Your task to perform on an android device: open chrome privacy settings Image 0: 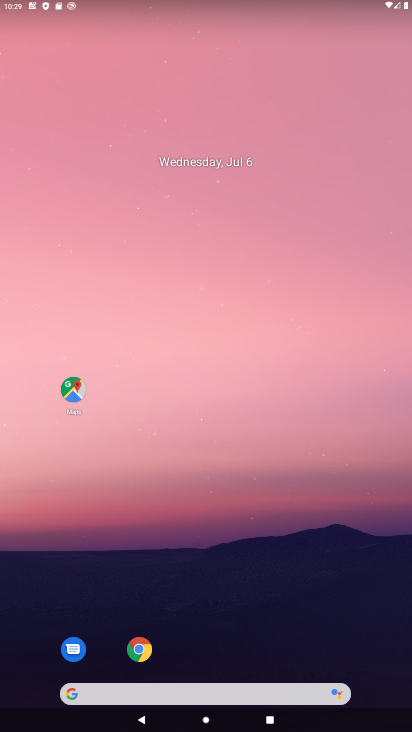
Step 0: drag from (384, 658) to (221, 98)
Your task to perform on an android device: open chrome privacy settings Image 1: 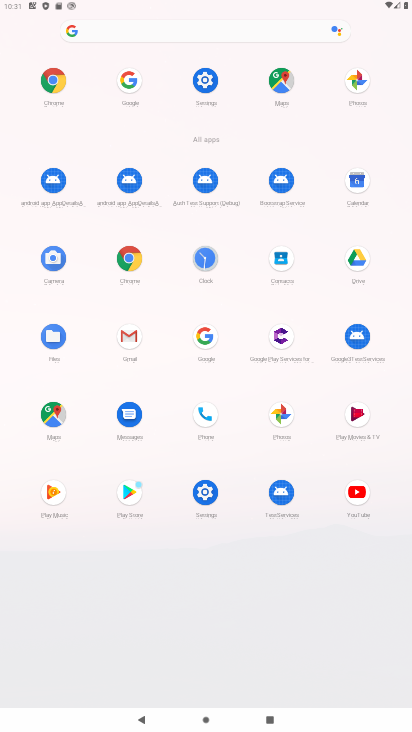
Step 1: click (128, 254)
Your task to perform on an android device: open chrome privacy settings Image 2: 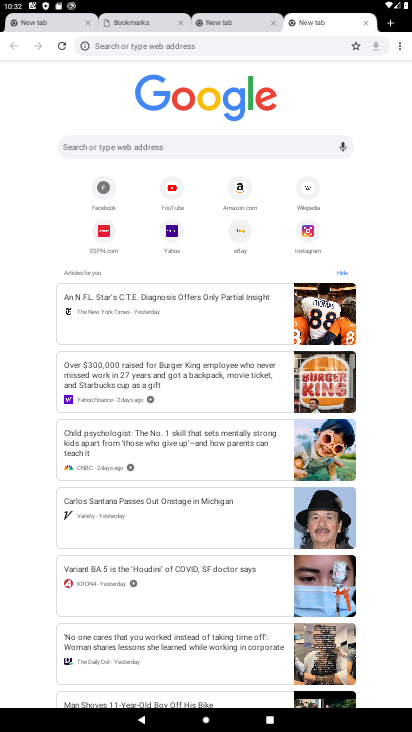
Step 2: click (403, 46)
Your task to perform on an android device: open chrome privacy settings Image 3: 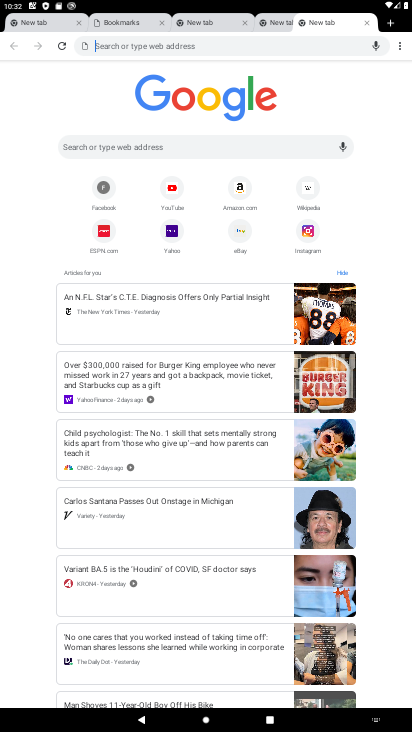
Step 3: click (400, 42)
Your task to perform on an android device: open chrome privacy settings Image 4: 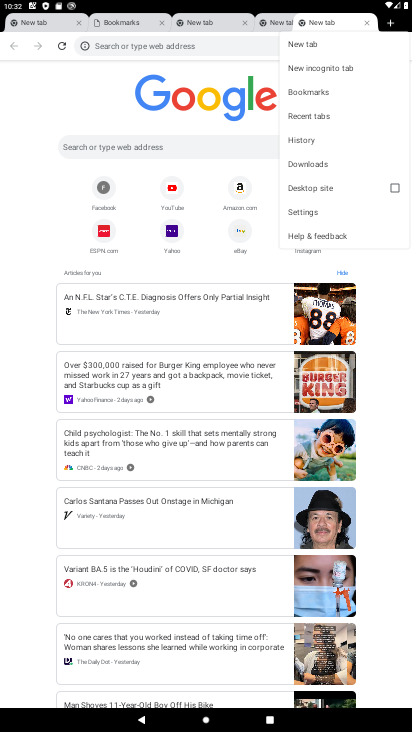
Step 4: click (332, 214)
Your task to perform on an android device: open chrome privacy settings Image 5: 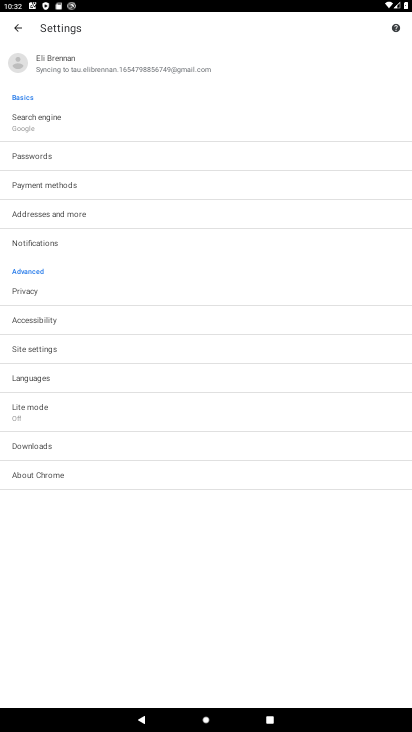
Step 5: click (45, 287)
Your task to perform on an android device: open chrome privacy settings Image 6: 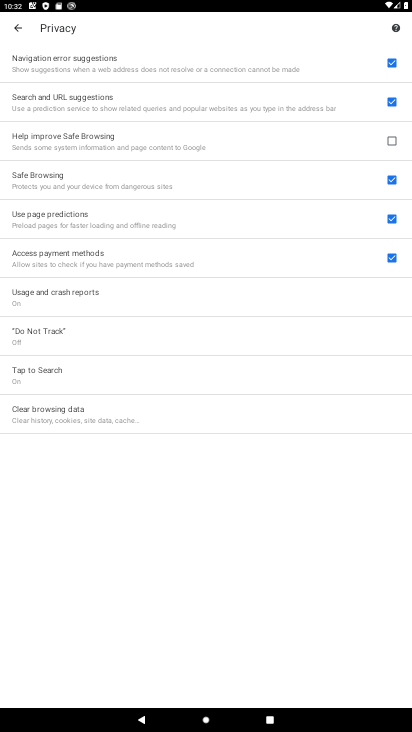
Step 6: task complete